Your task to perform on an android device: turn off picture-in-picture Image 0: 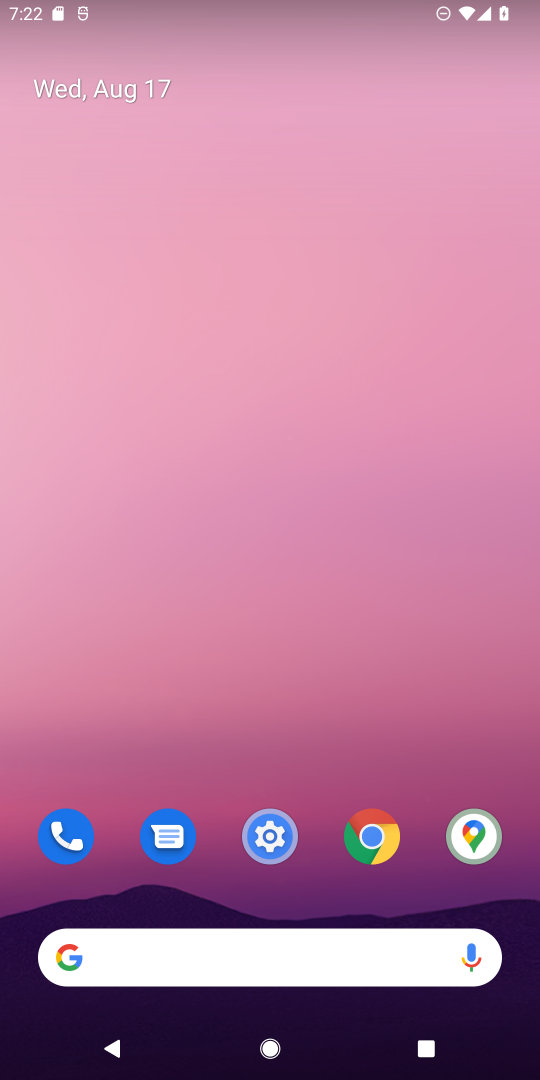
Step 0: drag from (199, 940) to (239, 454)
Your task to perform on an android device: turn off picture-in-picture Image 1: 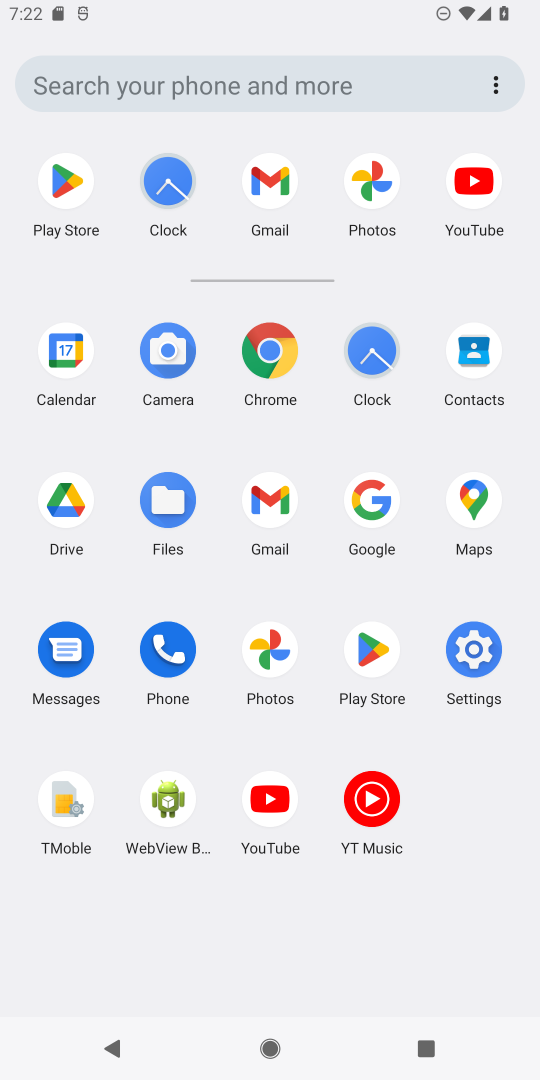
Step 1: click (478, 642)
Your task to perform on an android device: turn off picture-in-picture Image 2: 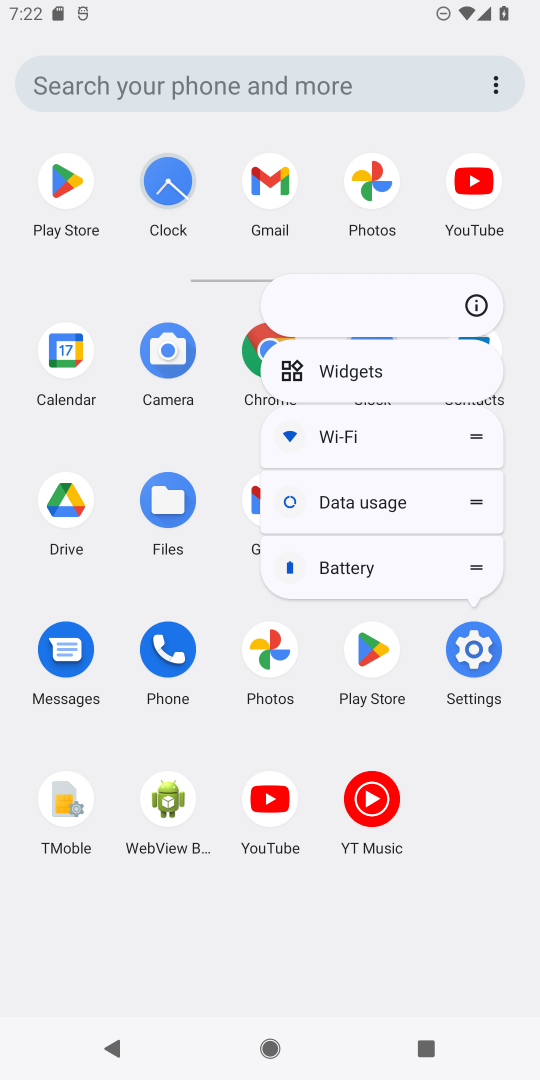
Step 2: click (464, 645)
Your task to perform on an android device: turn off picture-in-picture Image 3: 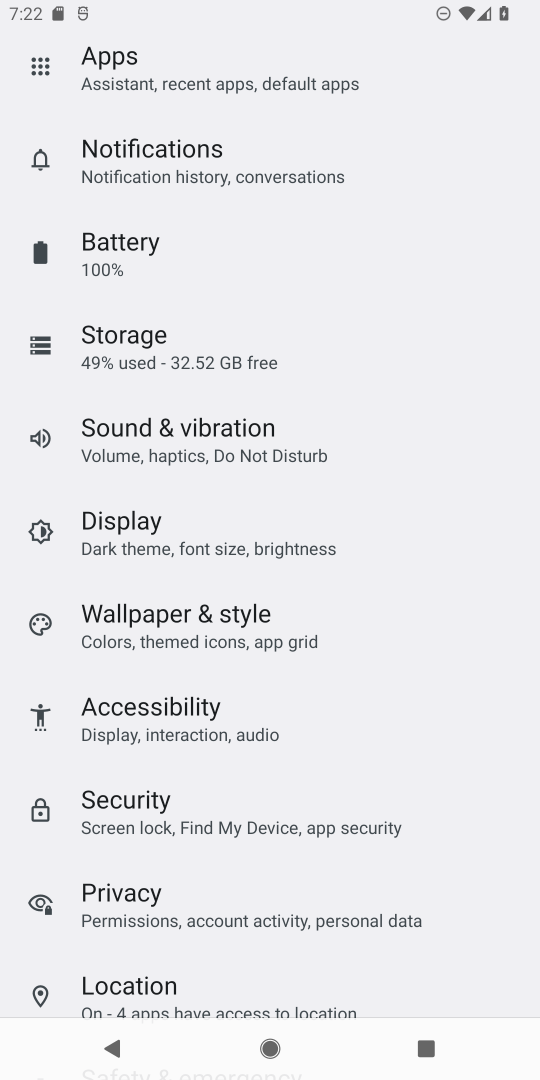
Step 3: drag from (202, 138) to (202, 537)
Your task to perform on an android device: turn off picture-in-picture Image 4: 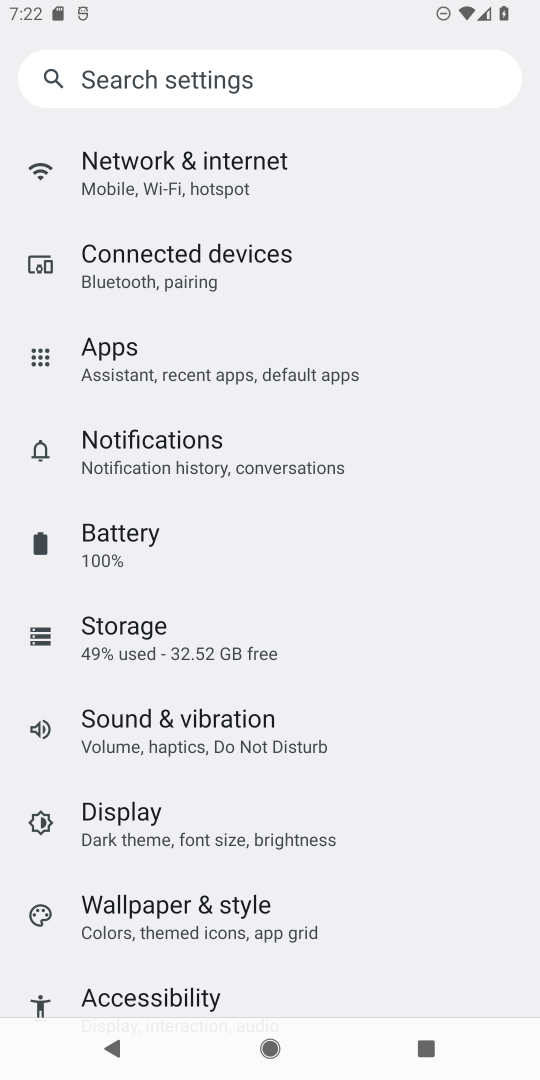
Step 4: click (226, 364)
Your task to perform on an android device: turn off picture-in-picture Image 5: 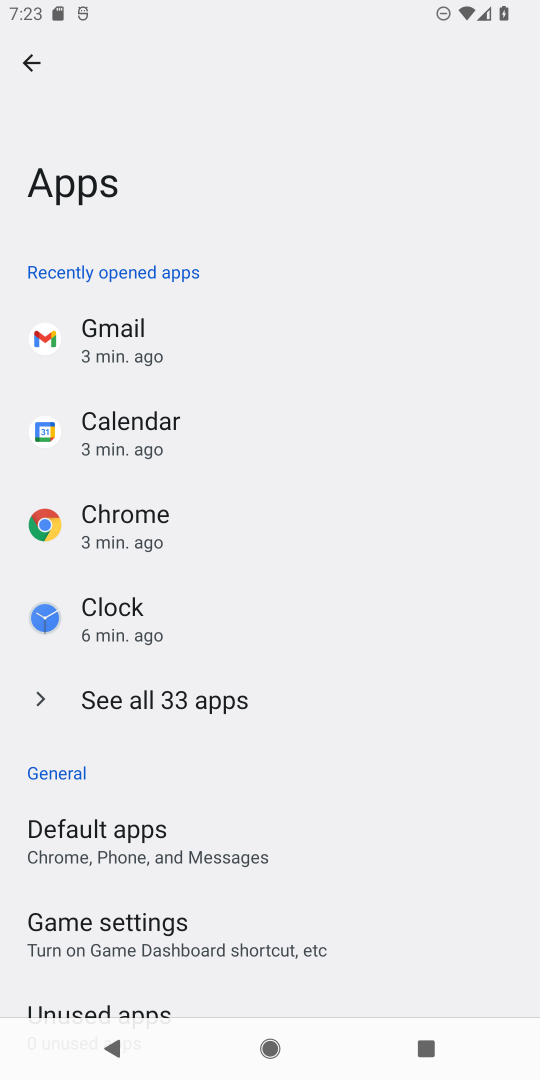
Step 5: drag from (157, 949) to (162, 441)
Your task to perform on an android device: turn off picture-in-picture Image 6: 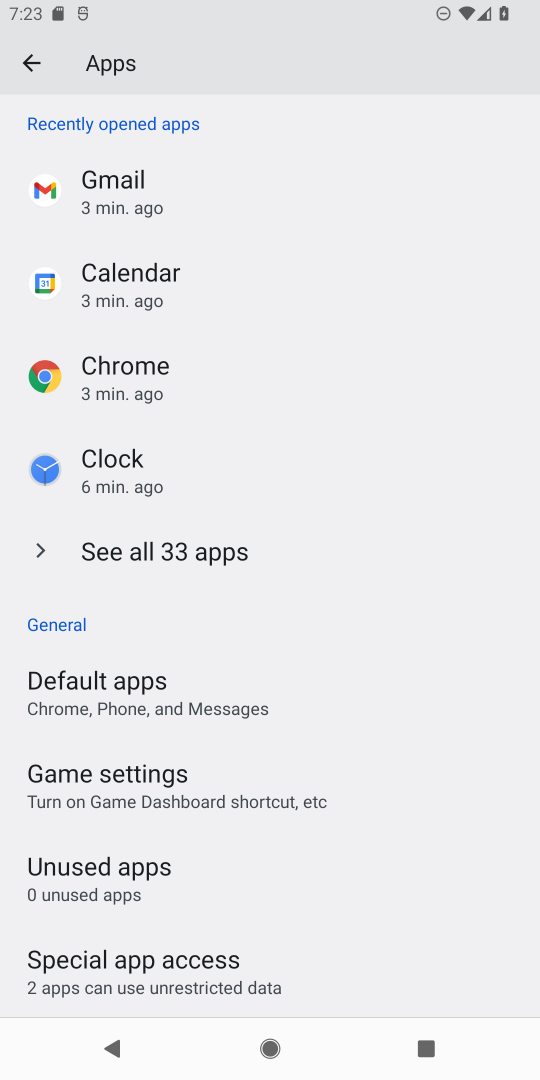
Step 6: click (188, 983)
Your task to perform on an android device: turn off picture-in-picture Image 7: 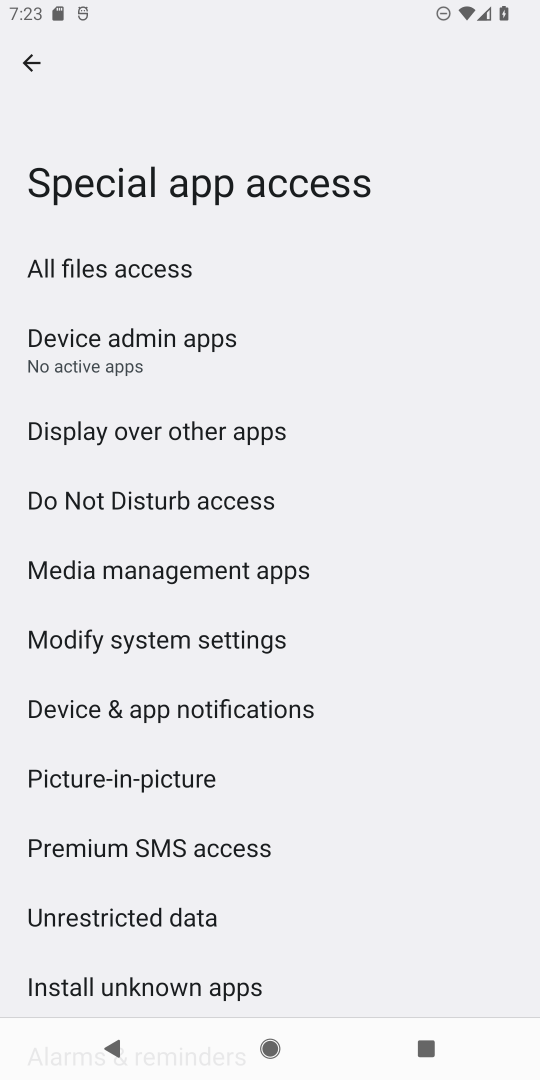
Step 7: click (180, 766)
Your task to perform on an android device: turn off picture-in-picture Image 8: 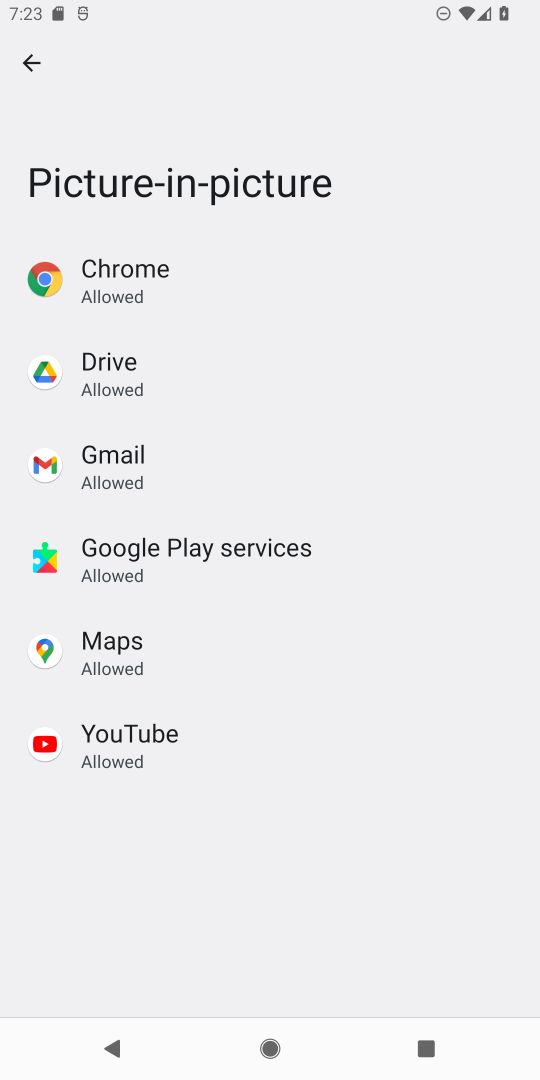
Step 8: click (151, 750)
Your task to perform on an android device: turn off picture-in-picture Image 9: 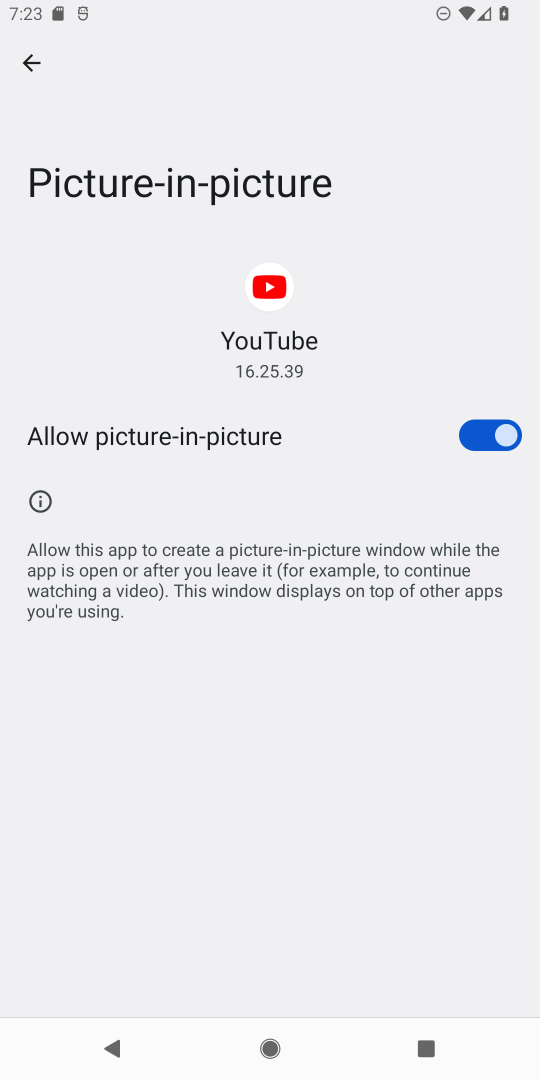
Step 9: click (454, 418)
Your task to perform on an android device: turn off picture-in-picture Image 10: 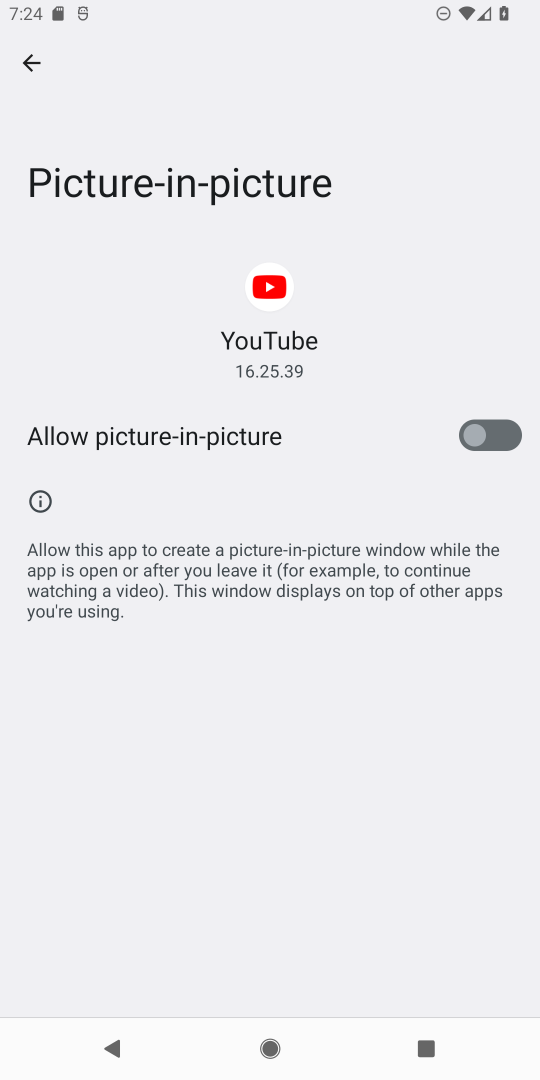
Step 10: task complete